Your task to perform on an android device: Go to accessibility settings Image 0: 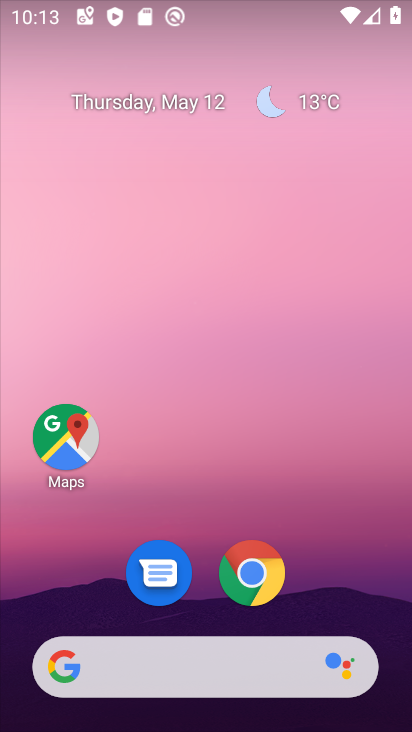
Step 0: drag from (214, 625) to (237, 5)
Your task to perform on an android device: Go to accessibility settings Image 1: 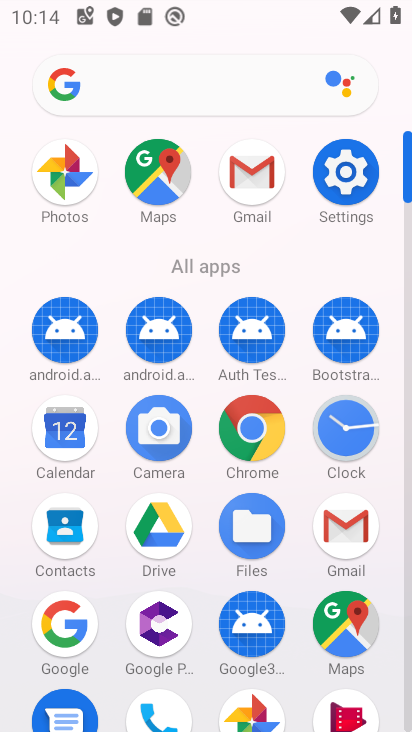
Step 1: click (349, 178)
Your task to perform on an android device: Go to accessibility settings Image 2: 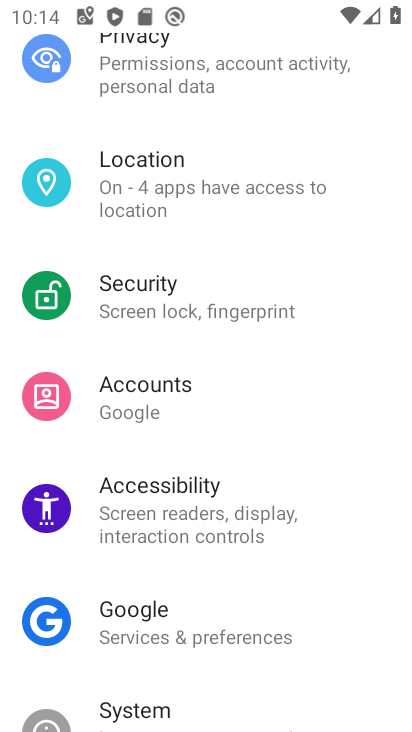
Step 2: click (180, 545)
Your task to perform on an android device: Go to accessibility settings Image 3: 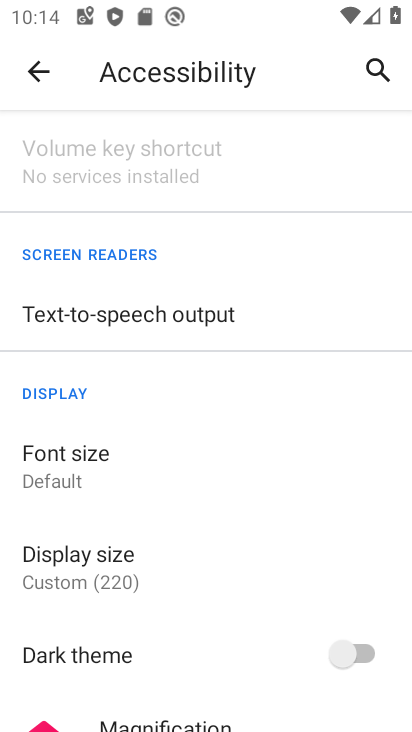
Step 3: task complete